Your task to perform on an android device: Turn on the flashlight Image 0: 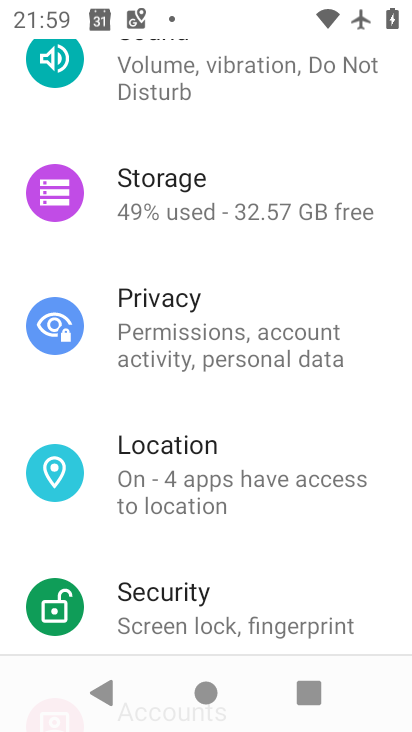
Step 0: task impossible